Your task to perform on an android device: see sites visited before in the chrome app Image 0: 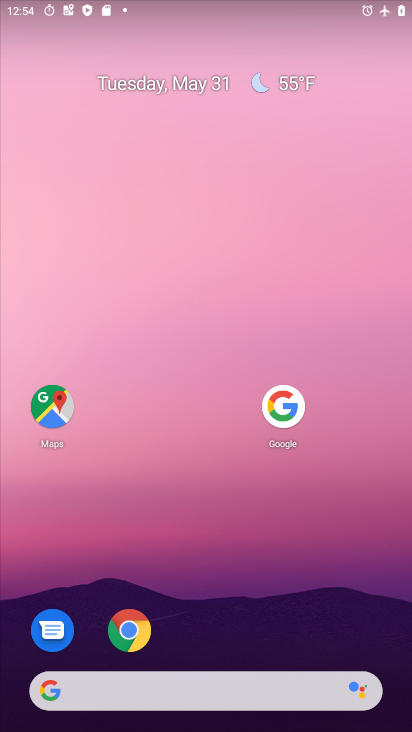
Step 0: drag from (159, 693) to (200, 604)
Your task to perform on an android device: see sites visited before in the chrome app Image 1: 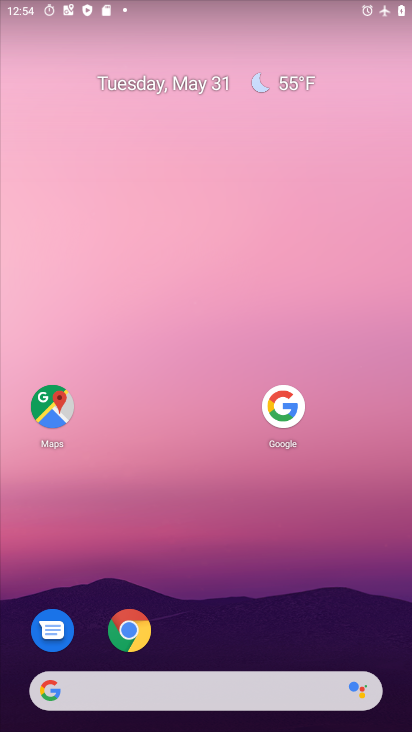
Step 1: click (138, 631)
Your task to perform on an android device: see sites visited before in the chrome app Image 2: 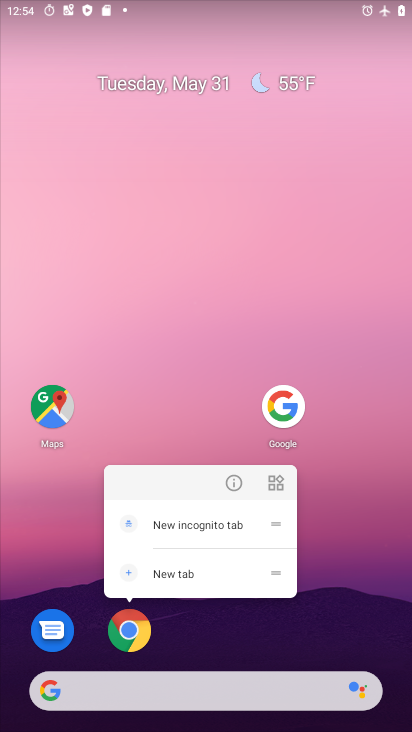
Step 2: click (126, 631)
Your task to perform on an android device: see sites visited before in the chrome app Image 3: 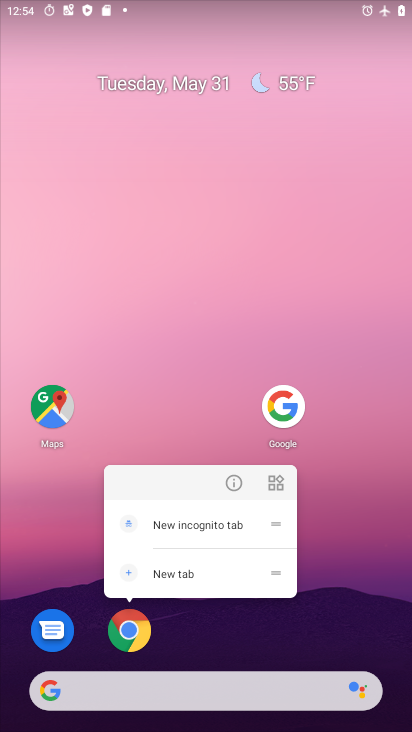
Step 3: click (146, 632)
Your task to perform on an android device: see sites visited before in the chrome app Image 4: 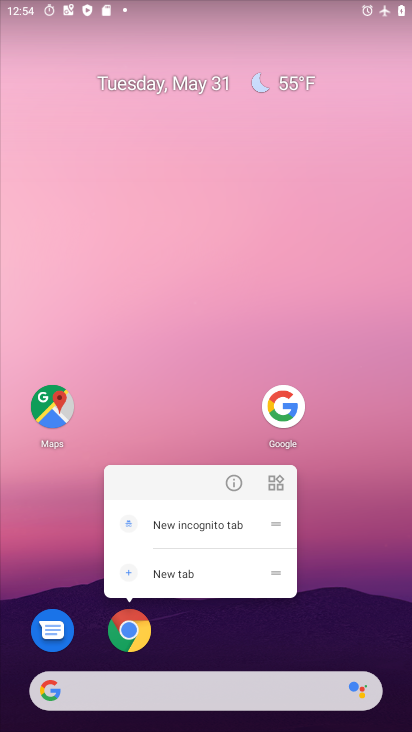
Step 4: click (138, 636)
Your task to perform on an android device: see sites visited before in the chrome app Image 5: 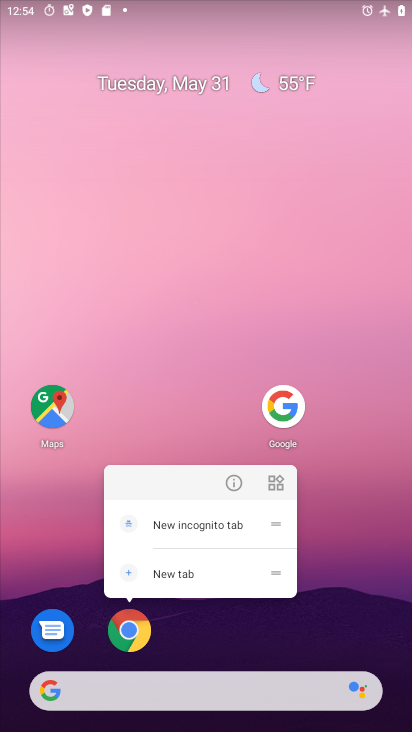
Step 5: click (128, 628)
Your task to perform on an android device: see sites visited before in the chrome app Image 6: 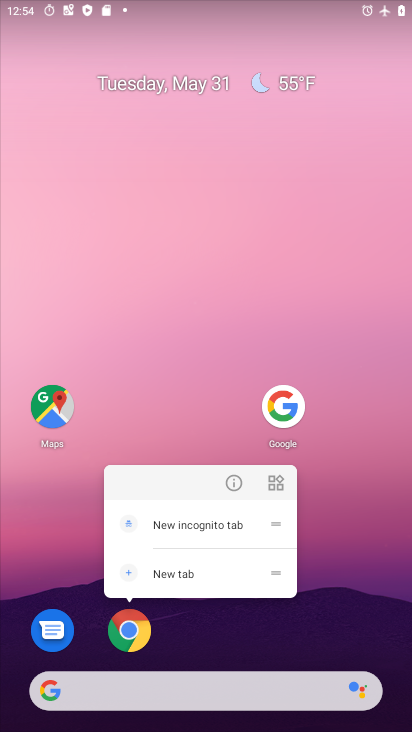
Step 6: click (141, 626)
Your task to perform on an android device: see sites visited before in the chrome app Image 7: 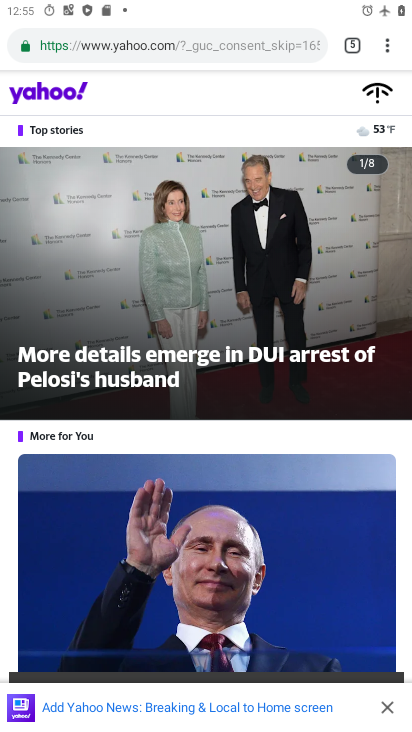
Step 7: task complete